Your task to perform on an android device: open app "LiveIn - Share Your Moment" (install if not already installed) and enter user name: "certifies@gmail.com" and password: "compartmented" Image 0: 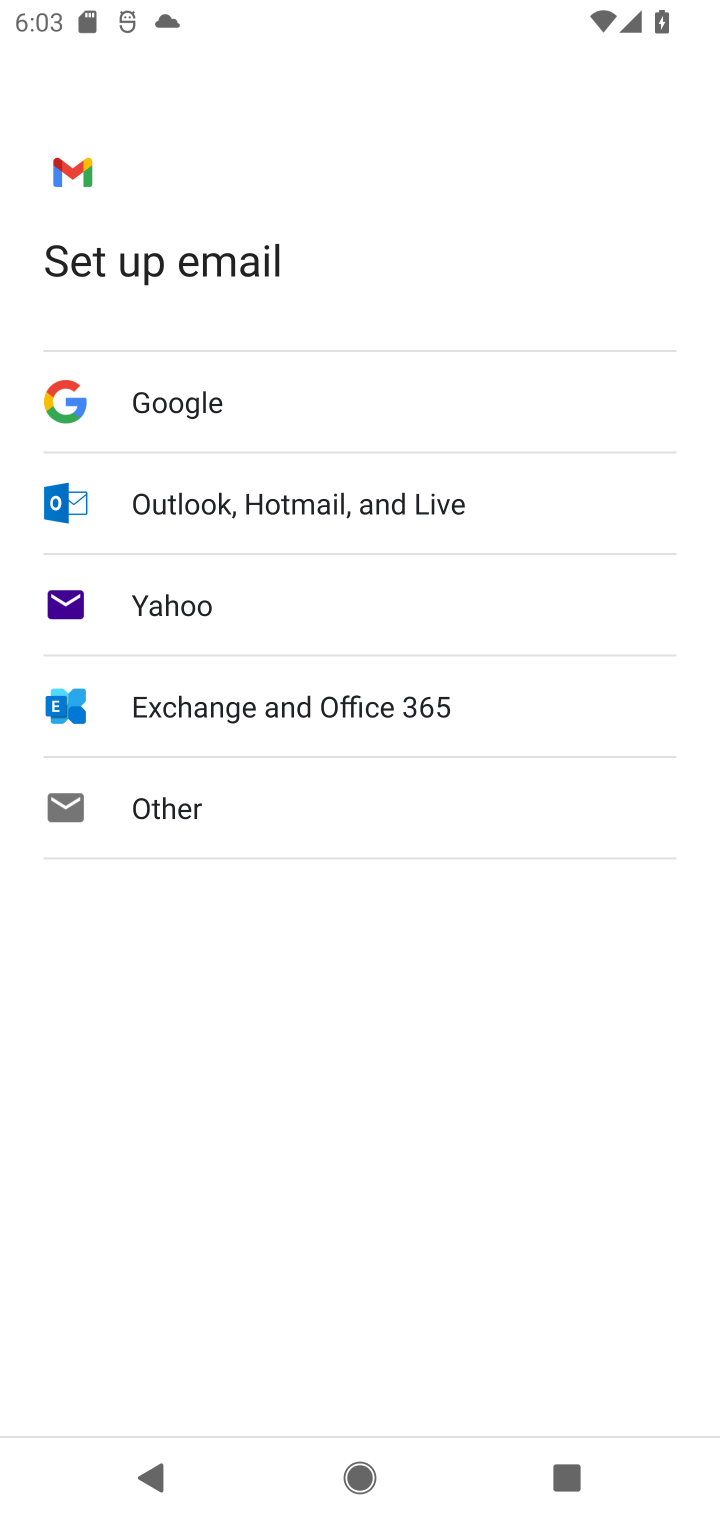
Step 0: press home button
Your task to perform on an android device: open app "LiveIn - Share Your Moment" (install if not already installed) and enter user name: "certifies@gmail.com" and password: "compartmented" Image 1: 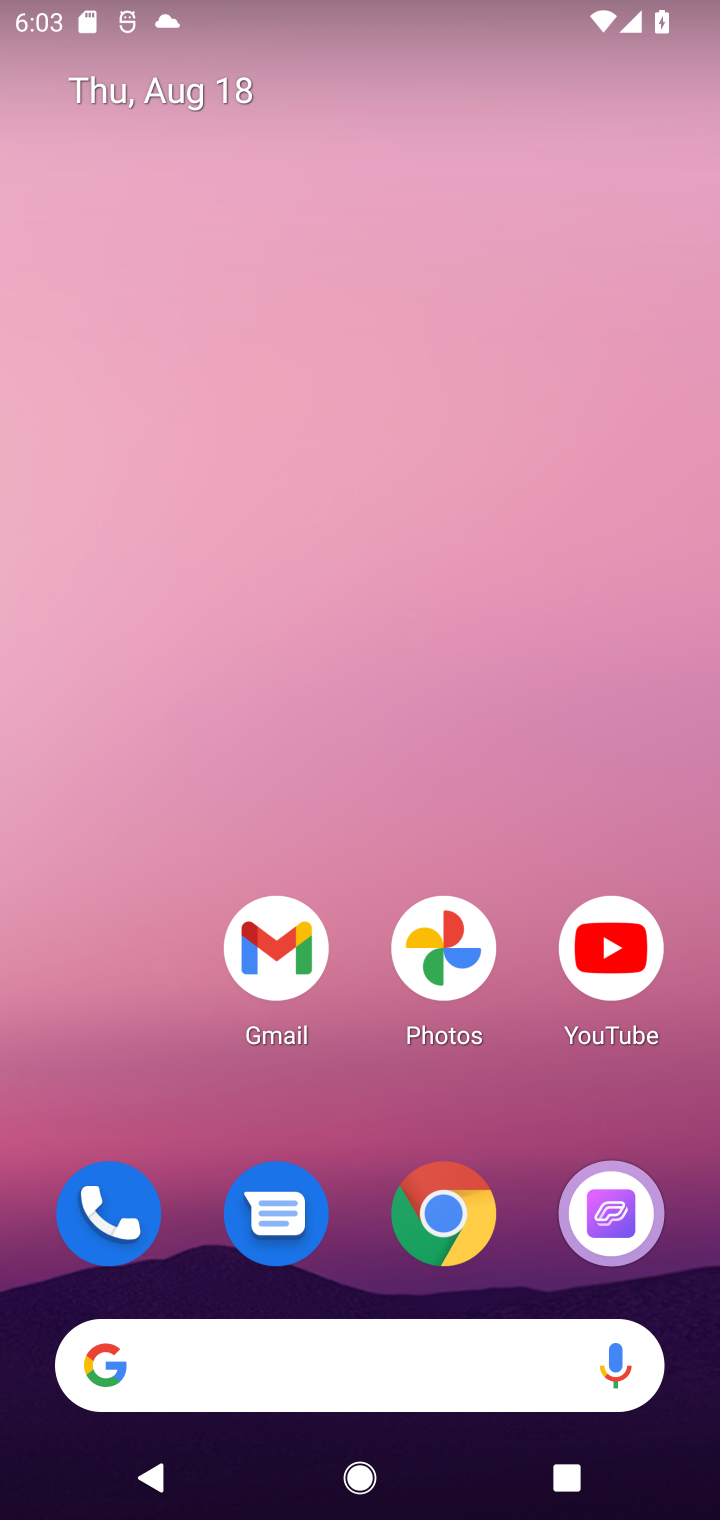
Step 1: drag from (358, 1172) to (353, 129)
Your task to perform on an android device: open app "LiveIn - Share Your Moment" (install if not already installed) and enter user name: "certifies@gmail.com" and password: "compartmented" Image 2: 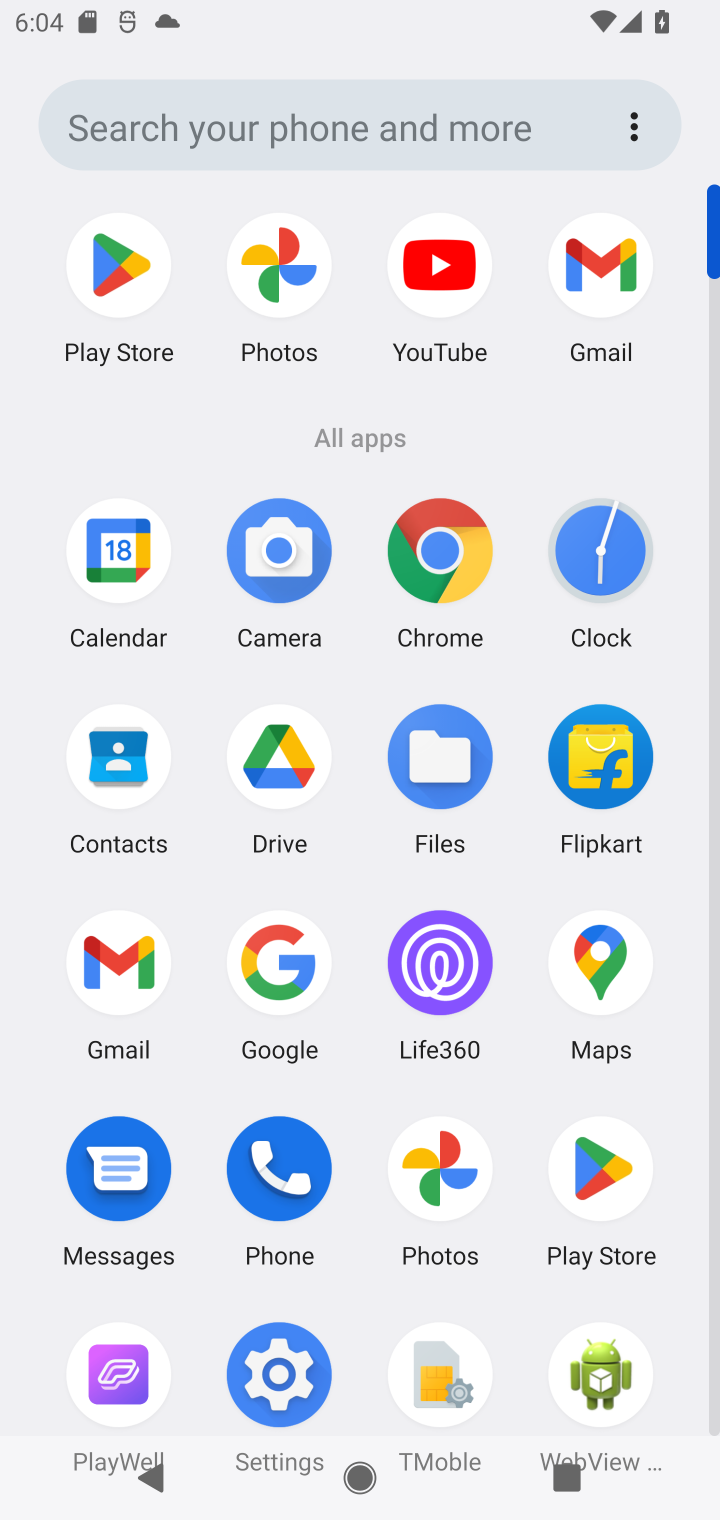
Step 2: click (591, 1157)
Your task to perform on an android device: open app "LiveIn - Share Your Moment" (install if not already installed) and enter user name: "certifies@gmail.com" and password: "compartmented" Image 3: 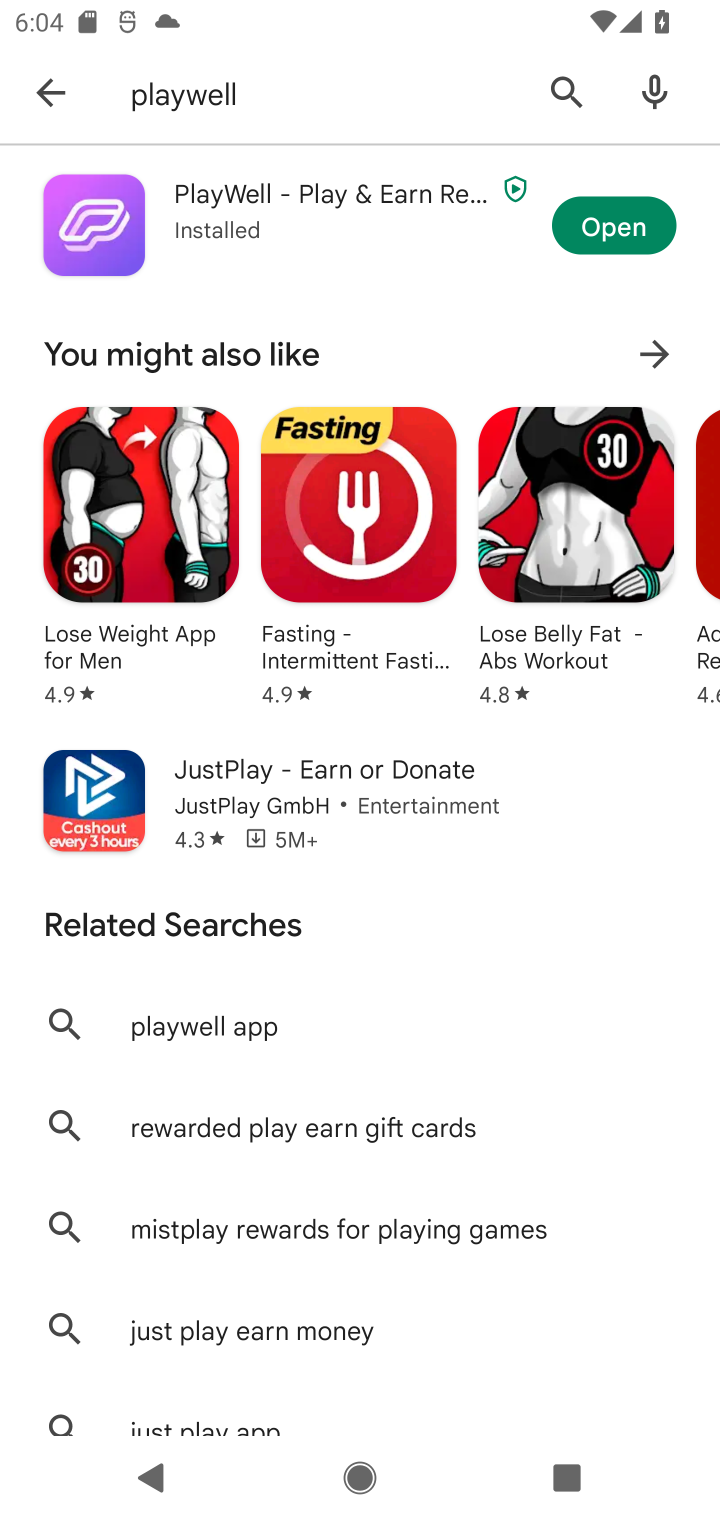
Step 3: click (542, 74)
Your task to perform on an android device: open app "LiveIn - Share Your Moment" (install if not already installed) and enter user name: "certifies@gmail.com" and password: "compartmented" Image 4: 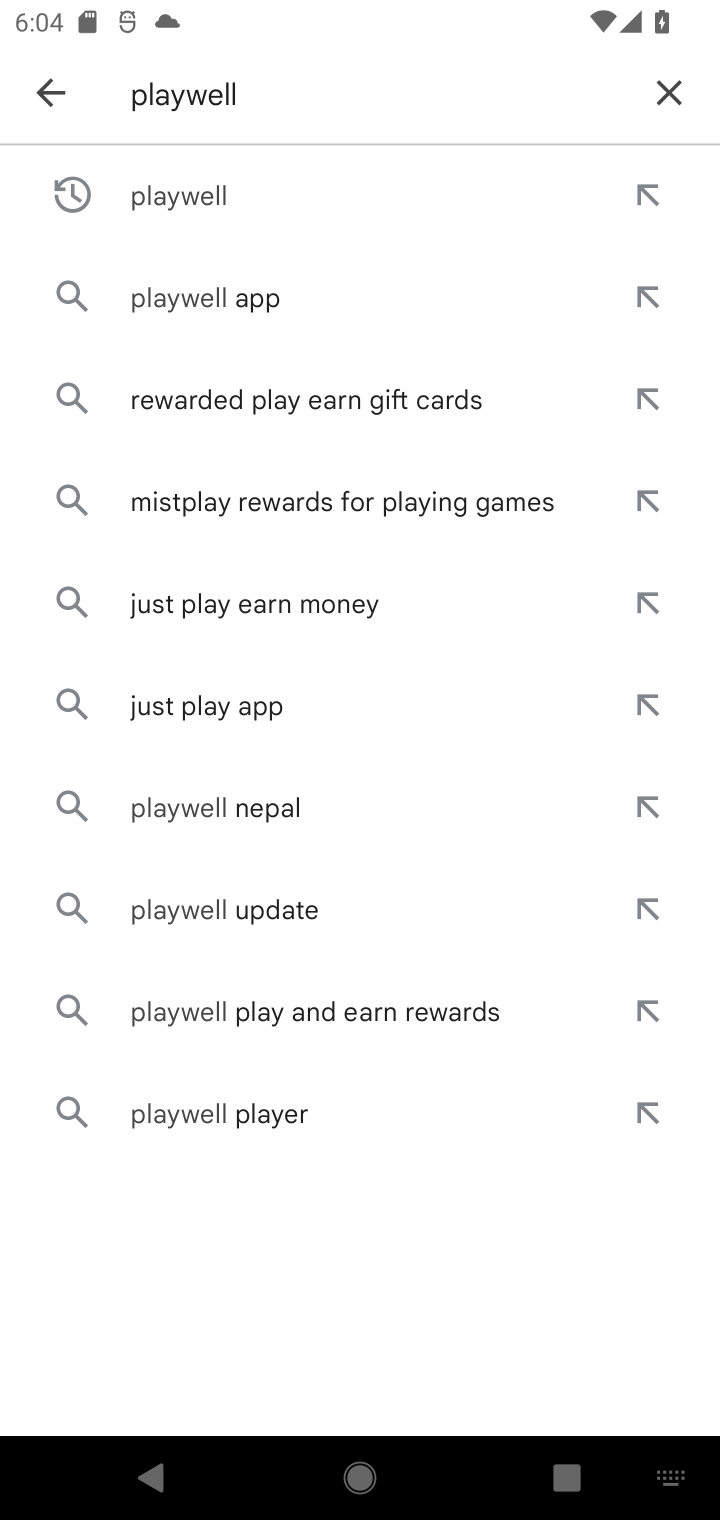
Step 4: click (666, 98)
Your task to perform on an android device: open app "LiveIn - Share Your Moment" (install if not already installed) and enter user name: "certifies@gmail.com" and password: "compartmented" Image 5: 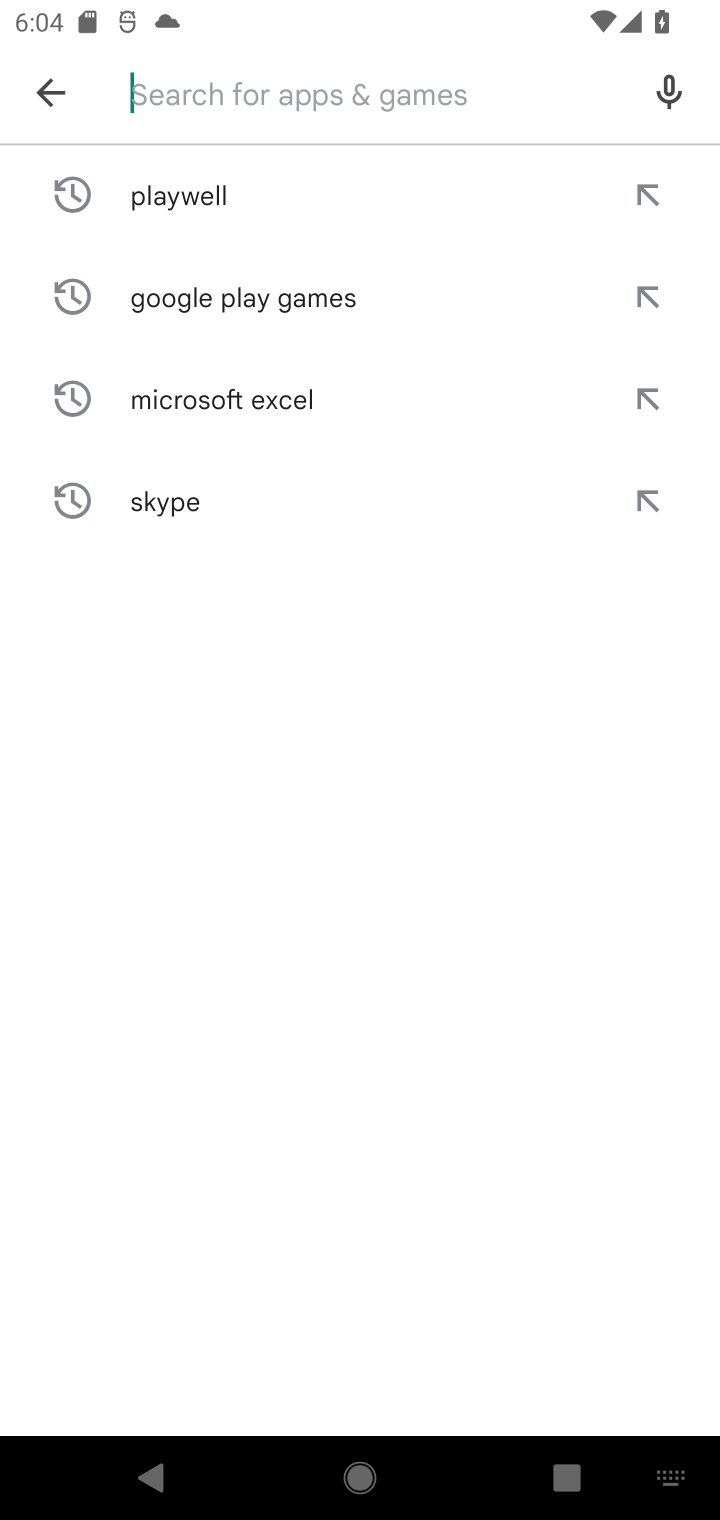
Step 5: type "LiveIn - Share Your Moment"
Your task to perform on an android device: open app "LiveIn - Share Your Moment" (install if not already installed) and enter user name: "certifies@gmail.com" and password: "compartmented" Image 6: 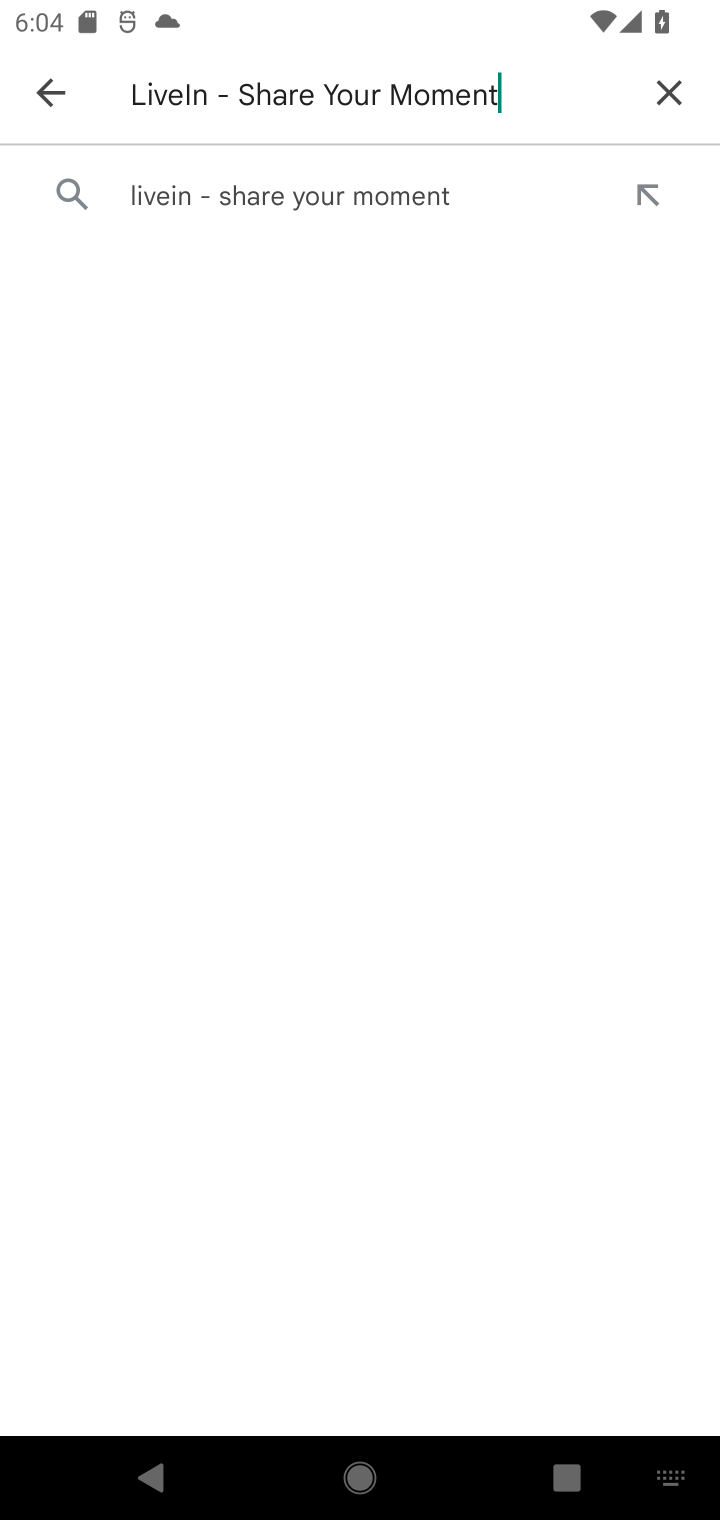
Step 6: click (224, 187)
Your task to perform on an android device: open app "LiveIn - Share Your Moment" (install if not already installed) and enter user name: "certifies@gmail.com" and password: "compartmented" Image 7: 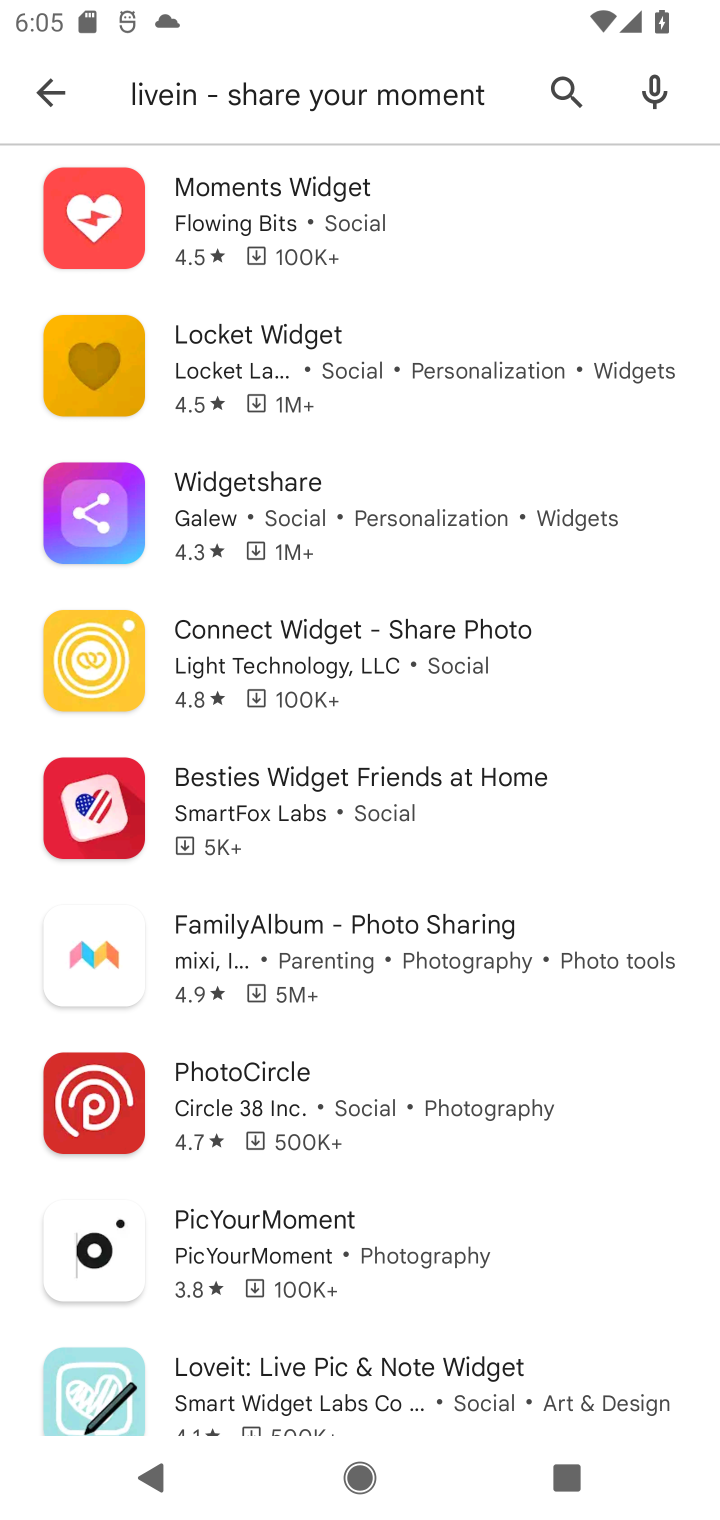
Step 7: task complete